Your task to perform on an android device: Open maps Image 0: 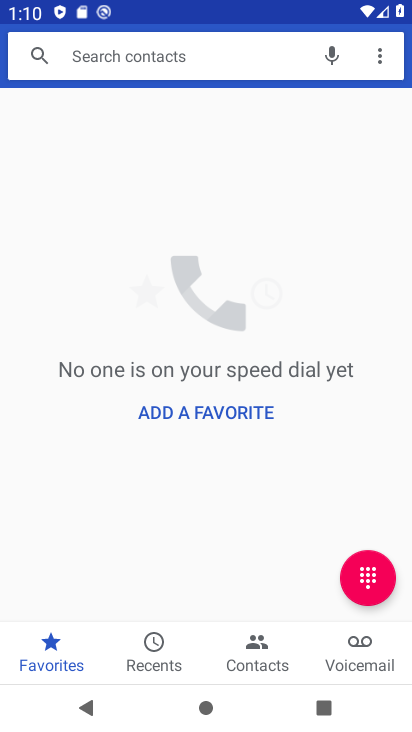
Step 0: press home button
Your task to perform on an android device: Open maps Image 1: 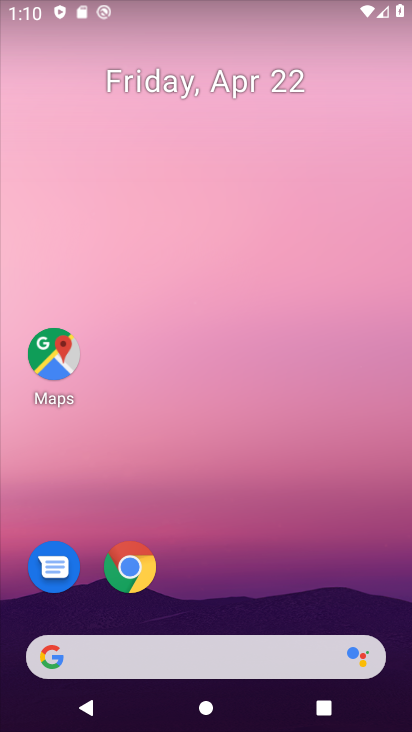
Step 1: click (41, 354)
Your task to perform on an android device: Open maps Image 2: 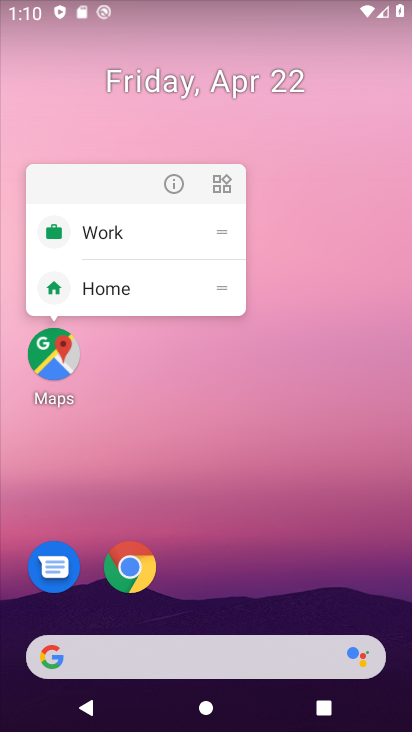
Step 2: click (42, 354)
Your task to perform on an android device: Open maps Image 3: 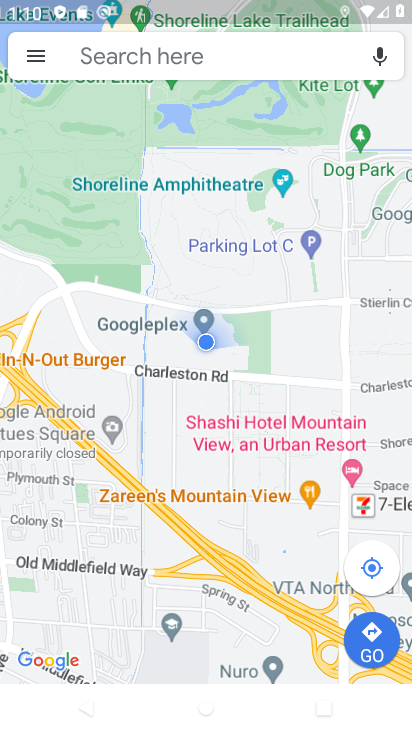
Step 3: task complete